Your task to perform on an android device: Clear all items from cart on bestbuy. Search for razer deathadder on bestbuy, select the first entry, add it to the cart, then select checkout. Image 0: 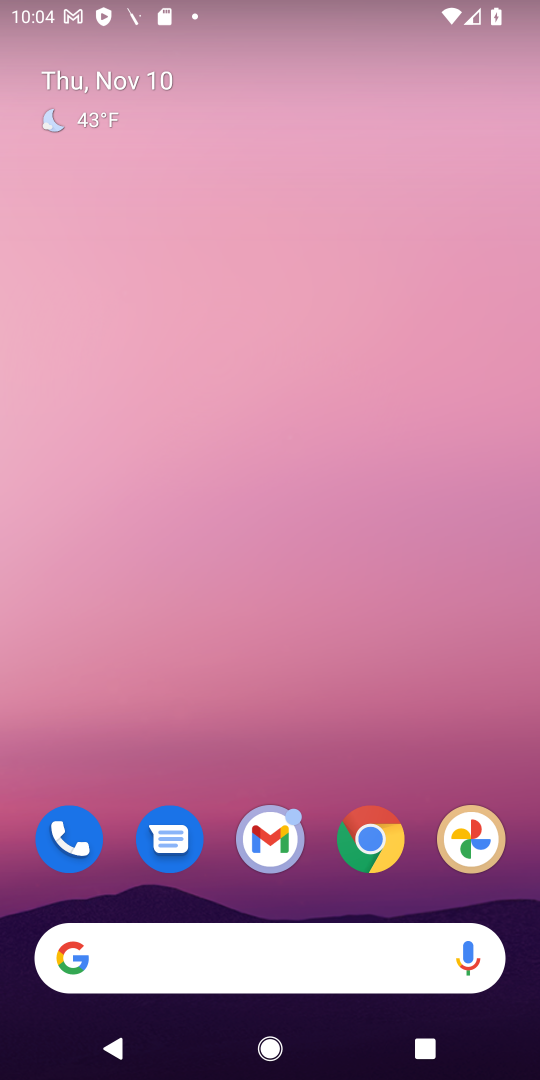
Step 0: click (393, 841)
Your task to perform on an android device: Clear all items from cart on bestbuy. Search for razer deathadder on bestbuy, select the first entry, add it to the cart, then select checkout. Image 1: 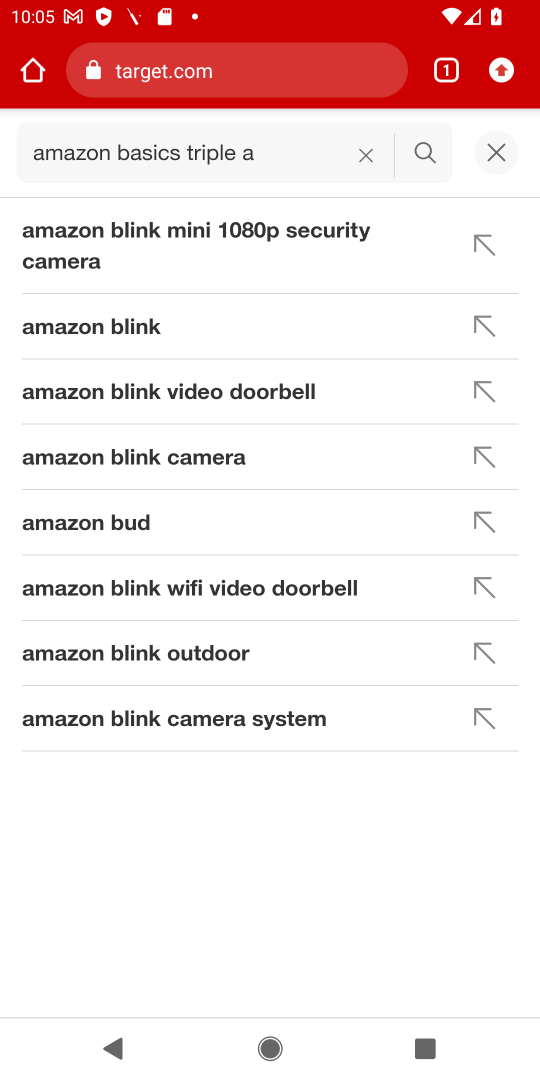
Step 1: click (333, 88)
Your task to perform on an android device: Clear all items from cart on bestbuy. Search for razer deathadder on bestbuy, select the first entry, add it to the cart, then select checkout. Image 2: 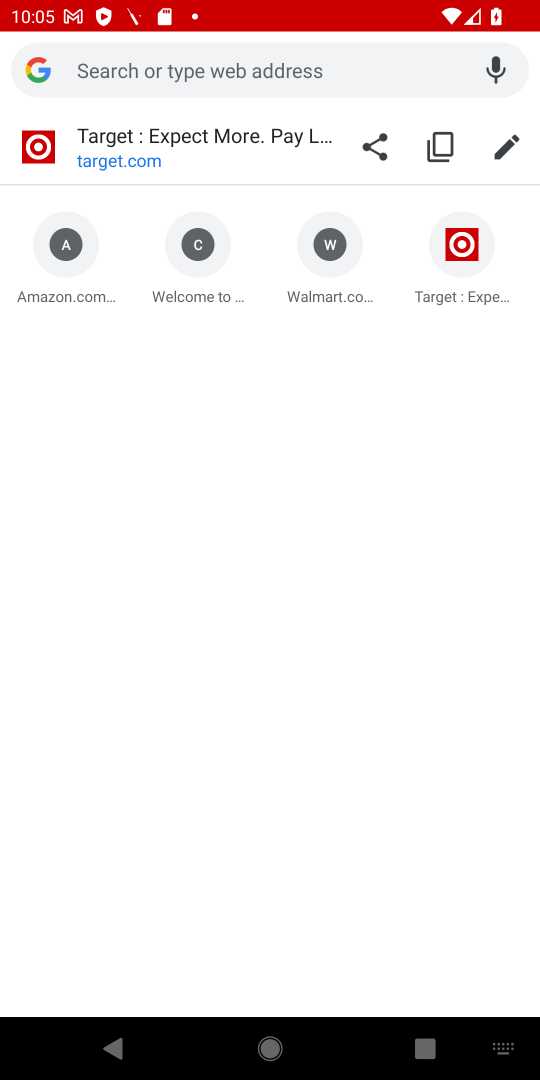
Step 2: type "bestbuy"
Your task to perform on an android device: Clear all items from cart on bestbuy. Search for razer deathadder on bestbuy, select the first entry, add it to the cart, then select checkout. Image 3: 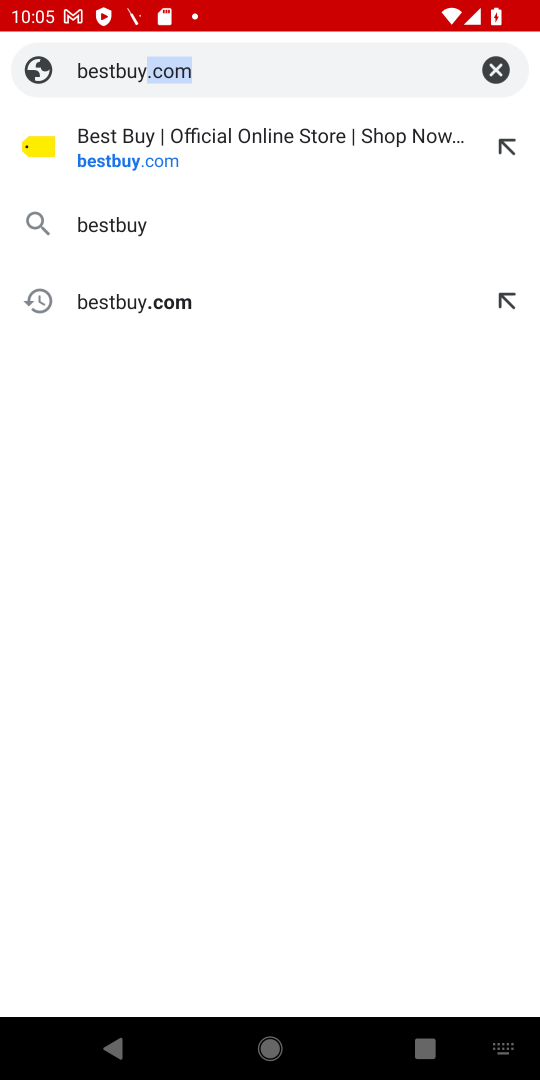
Step 3: click (353, 67)
Your task to perform on an android device: Clear all items from cart on bestbuy. Search for razer deathadder on bestbuy, select the first entry, add it to the cart, then select checkout. Image 4: 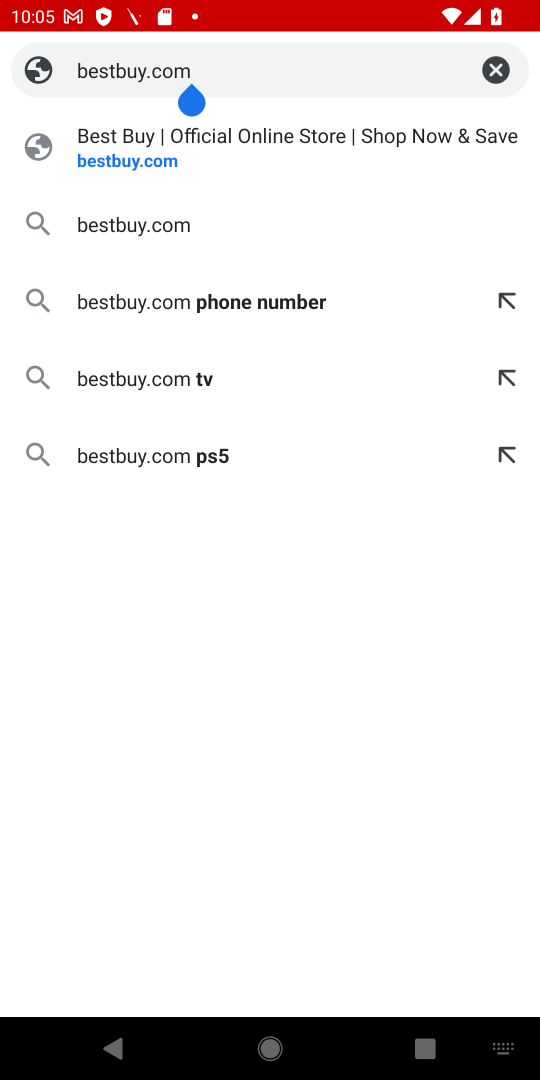
Step 4: click (170, 221)
Your task to perform on an android device: Clear all items from cart on bestbuy. Search for razer deathadder on bestbuy, select the first entry, add it to the cart, then select checkout. Image 5: 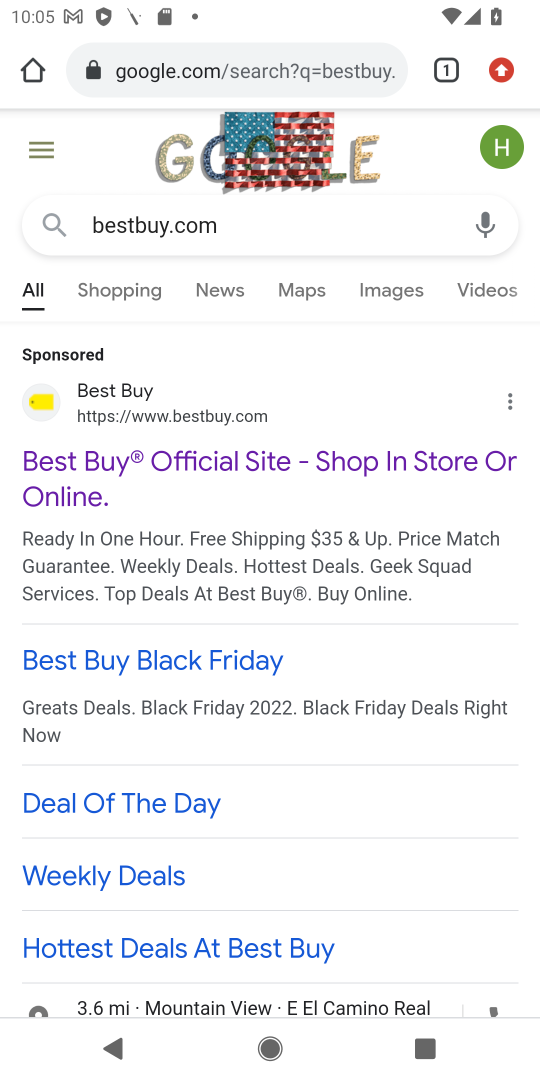
Step 5: click (221, 413)
Your task to perform on an android device: Clear all items from cart on bestbuy. Search for razer deathadder on bestbuy, select the first entry, add it to the cart, then select checkout. Image 6: 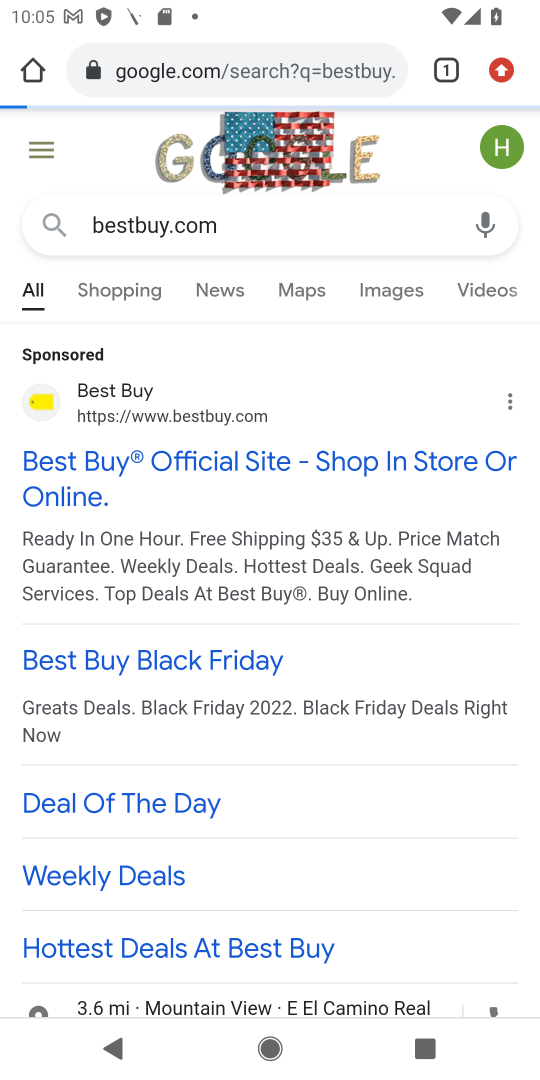
Step 6: click (221, 413)
Your task to perform on an android device: Clear all items from cart on bestbuy. Search for razer deathadder on bestbuy, select the first entry, add it to the cart, then select checkout. Image 7: 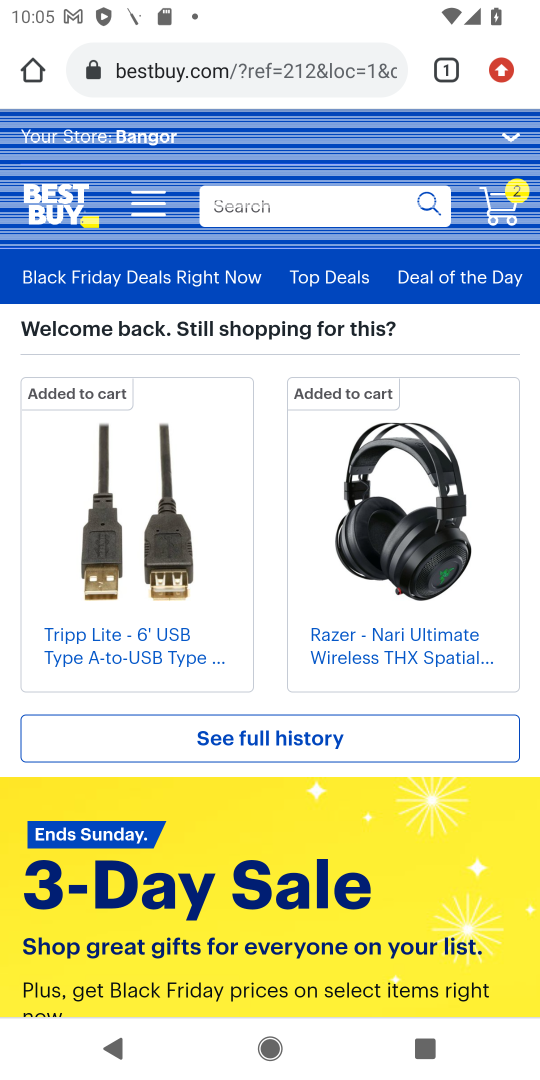
Step 7: click (500, 209)
Your task to perform on an android device: Clear all items from cart on bestbuy. Search for razer deathadder on bestbuy, select the first entry, add it to the cart, then select checkout. Image 8: 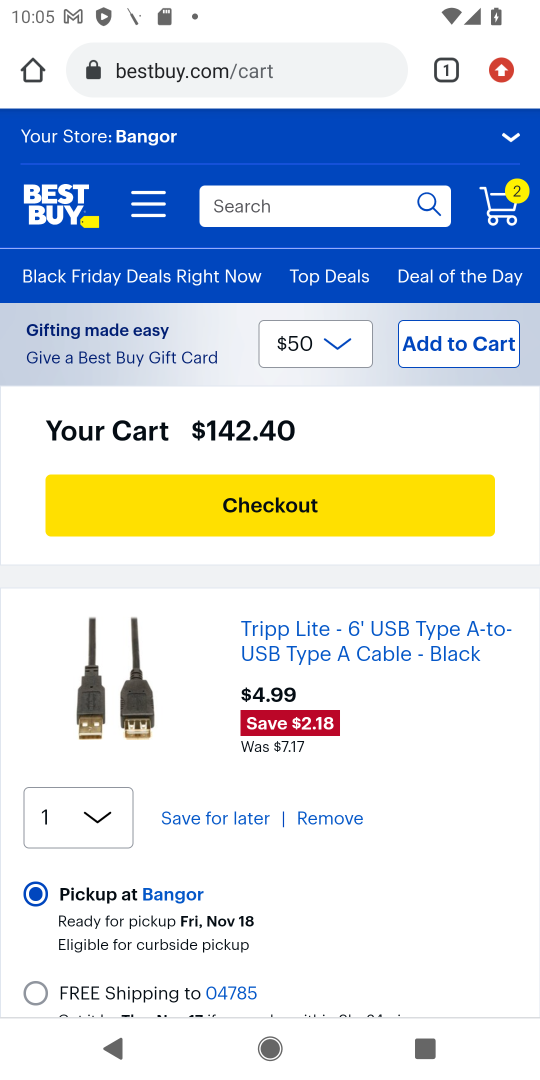
Step 8: click (324, 817)
Your task to perform on an android device: Clear all items from cart on bestbuy. Search for razer deathadder on bestbuy, select the first entry, add it to the cart, then select checkout. Image 9: 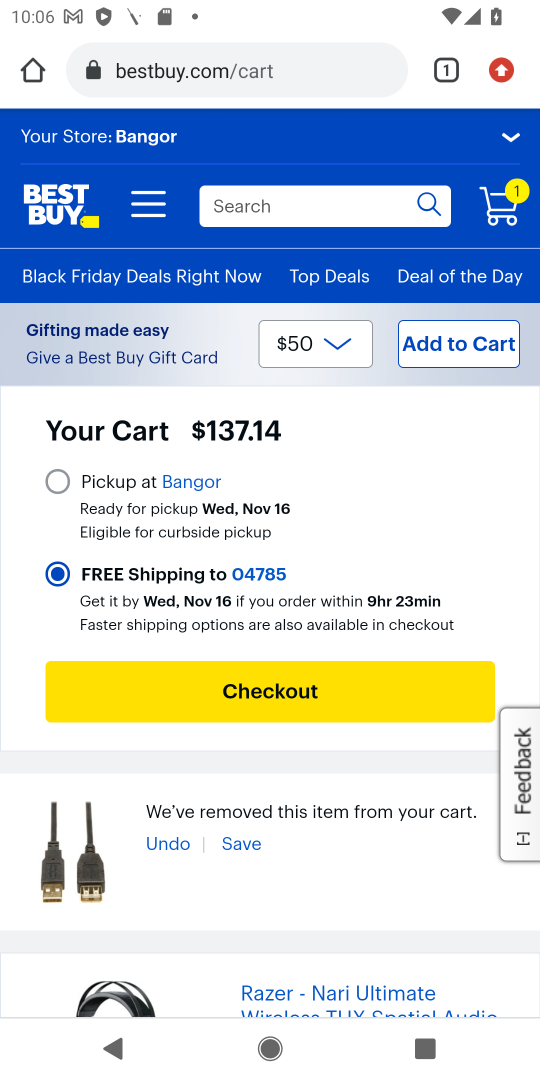
Step 9: drag from (377, 788) to (404, 345)
Your task to perform on an android device: Clear all items from cart on bestbuy. Search for razer deathadder on bestbuy, select the first entry, add it to the cart, then select checkout. Image 10: 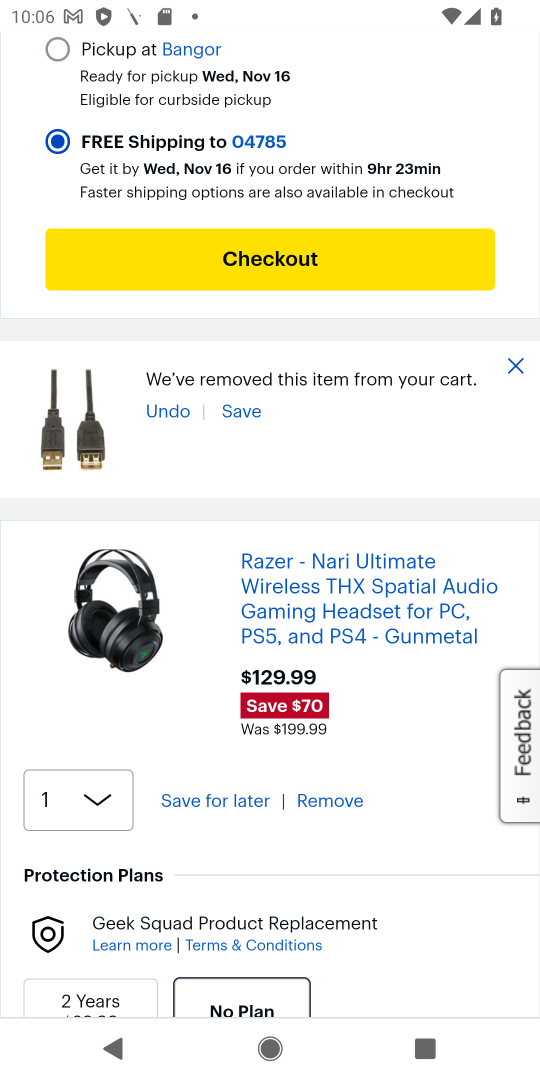
Step 10: click (338, 795)
Your task to perform on an android device: Clear all items from cart on bestbuy. Search for razer deathadder on bestbuy, select the first entry, add it to the cart, then select checkout. Image 11: 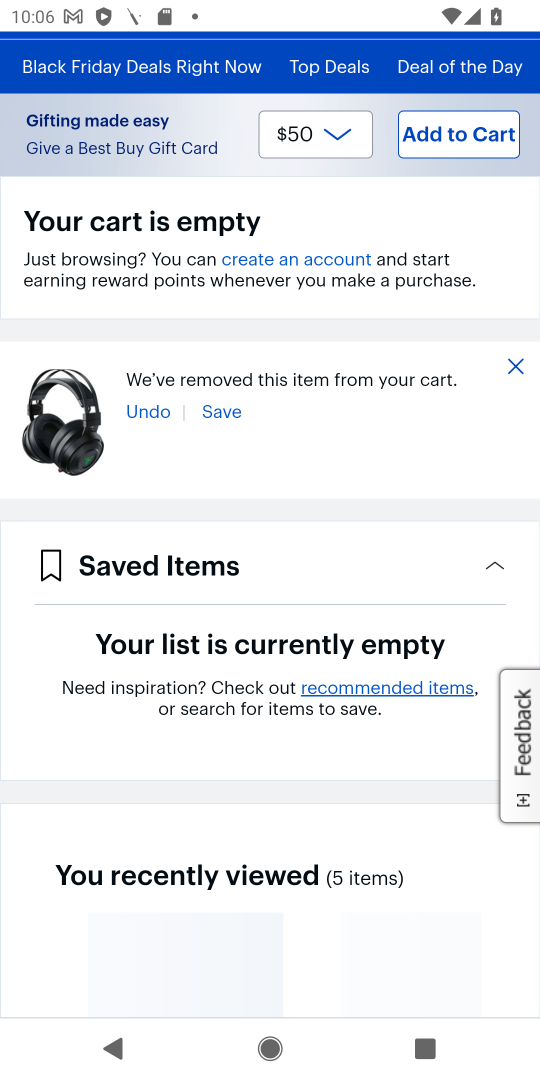
Step 11: click (517, 367)
Your task to perform on an android device: Clear all items from cart on bestbuy. Search for razer deathadder on bestbuy, select the first entry, add it to the cart, then select checkout. Image 12: 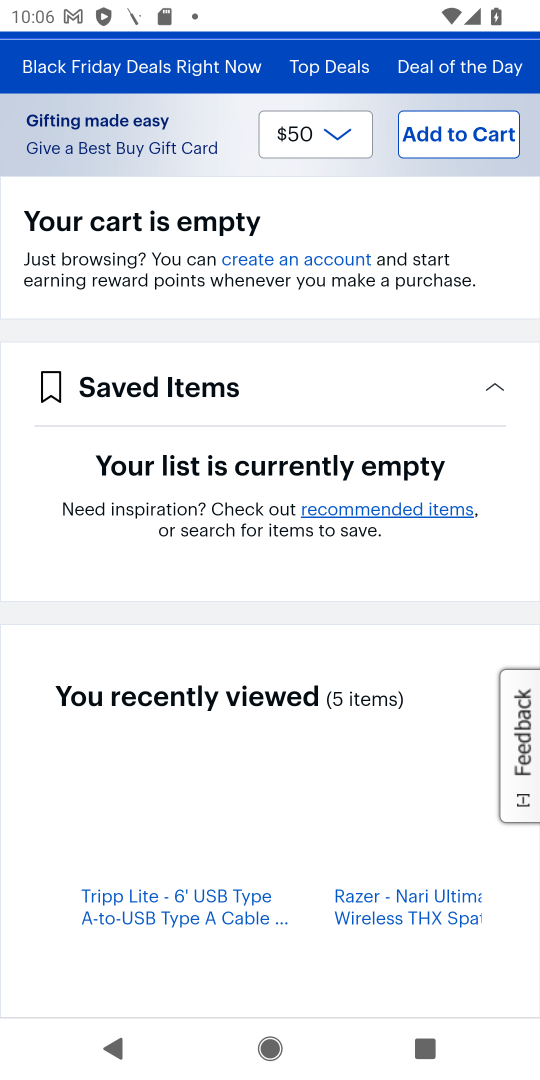
Step 12: drag from (408, 257) to (396, 591)
Your task to perform on an android device: Clear all items from cart on bestbuy. Search for razer deathadder on bestbuy, select the first entry, add it to the cart, then select checkout. Image 13: 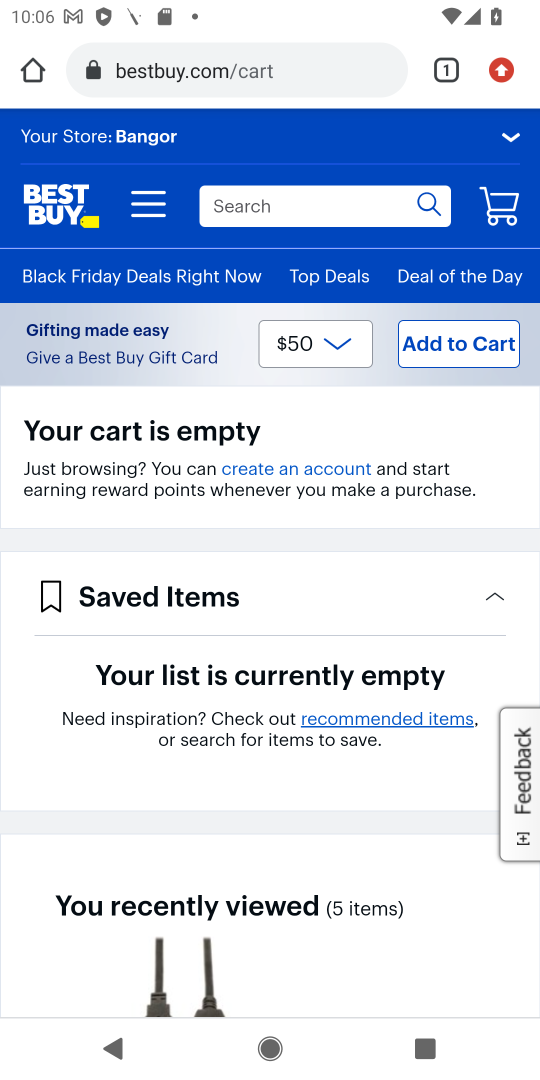
Step 13: click (361, 191)
Your task to perform on an android device: Clear all items from cart on bestbuy. Search for razer deathadder on bestbuy, select the first entry, add it to the cart, then select checkout. Image 14: 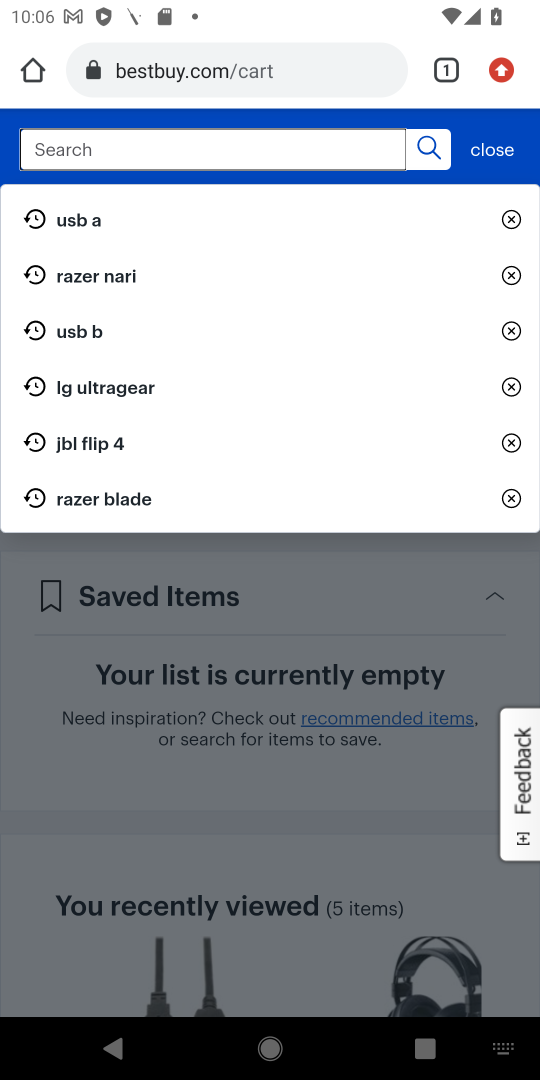
Step 14: press enter
Your task to perform on an android device: Clear all items from cart on bestbuy. Search for razer deathadder on bestbuy, select the first entry, add it to the cart, then select checkout. Image 15: 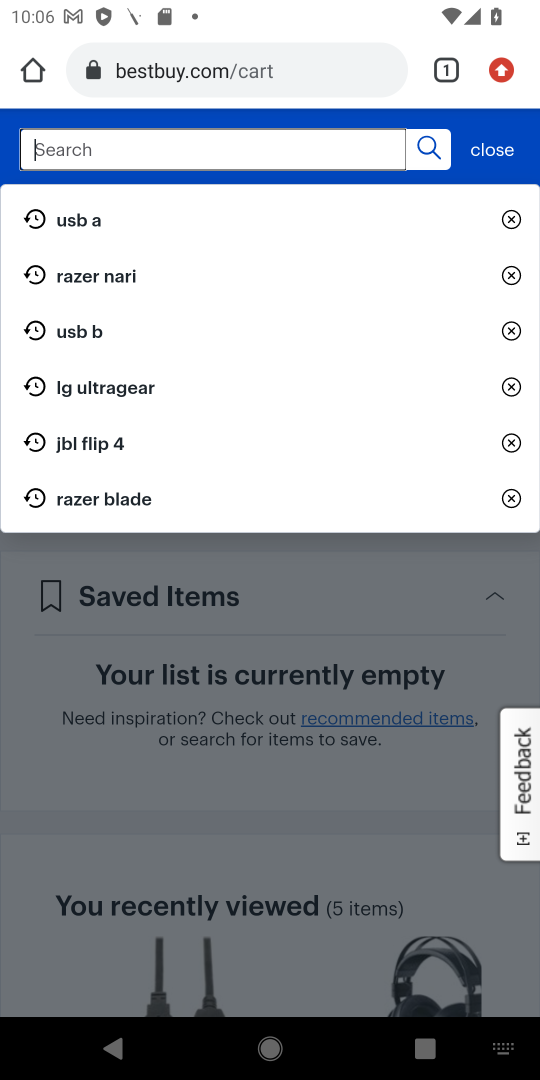
Step 15: type "razer deathadder"
Your task to perform on an android device: Clear all items from cart on bestbuy. Search for razer deathadder on bestbuy, select the first entry, add it to the cart, then select checkout. Image 16: 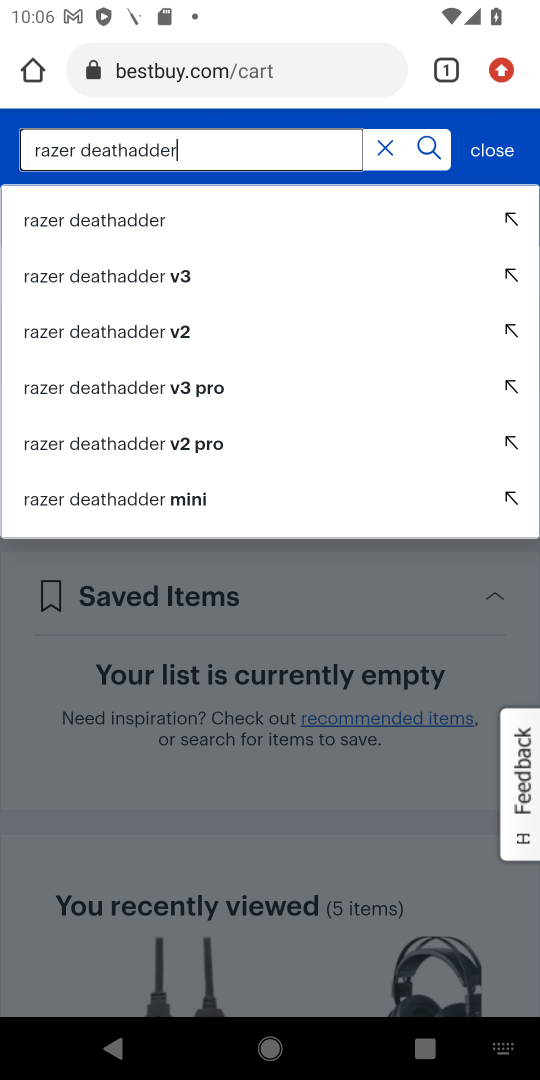
Step 16: click (141, 216)
Your task to perform on an android device: Clear all items from cart on bestbuy. Search for razer deathadder on bestbuy, select the first entry, add it to the cart, then select checkout. Image 17: 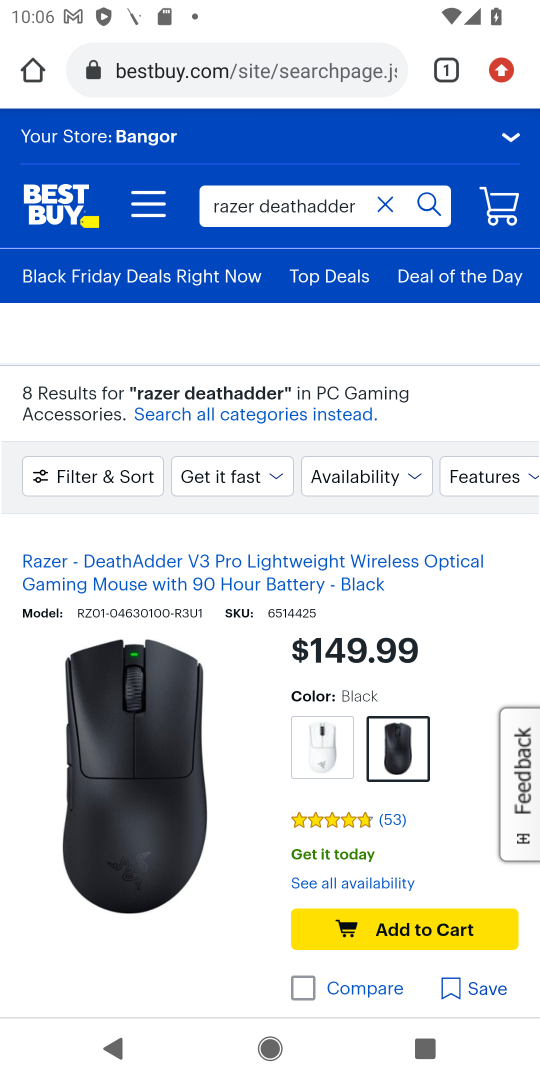
Step 17: click (206, 577)
Your task to perform on an android device: Clear all items from cart on bestbuy. Search for razer deathadder on bestbuy, select the first entry, add it to the cart, then select checkout. Image 18: 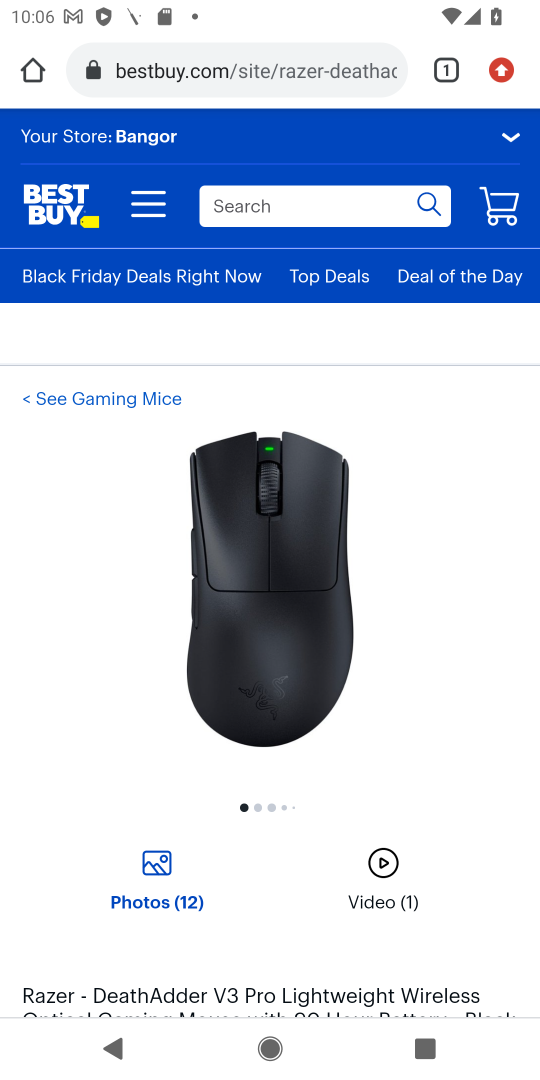
Step 18: drag from (437, 740) to (425, 285)
Your task to perform on an android device: Clear all items from cart on bestbuy. Search for razer deathadder on bestbuy, select the first entry, add it to the cart, then select checkout. Image 19: 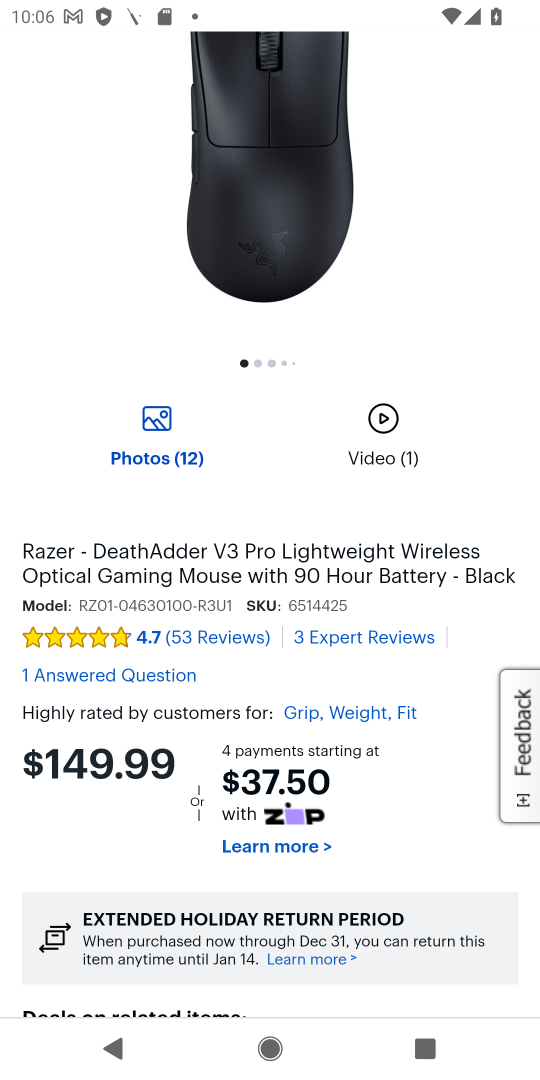
Step 19: drag from (438, 850) to (424, 430)
Your task to perform on an android device: Clear all items from cart on bestbuy. Search for razer deathadder on bestbuy, select the first entry, add it to the cart, then select checkout. Image 20: 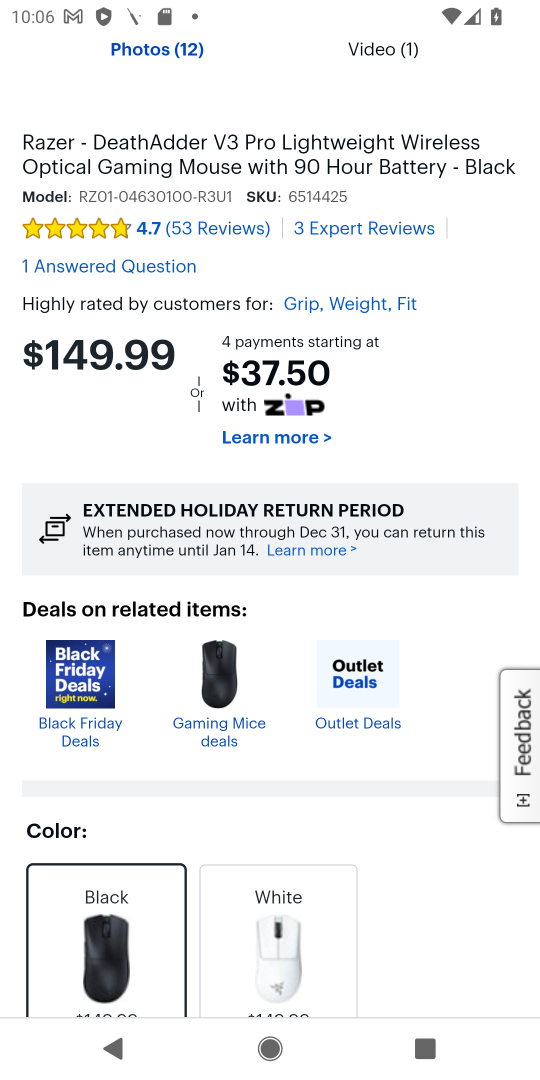
Step 20: drag from (435, 619) to (443, 242)
Your task to perform on an android device: Clear all items from cart on bestbuy. Search for razer deathadder on bestbuy, select the first entry, add it to the cart, then select checkout. Image 21: 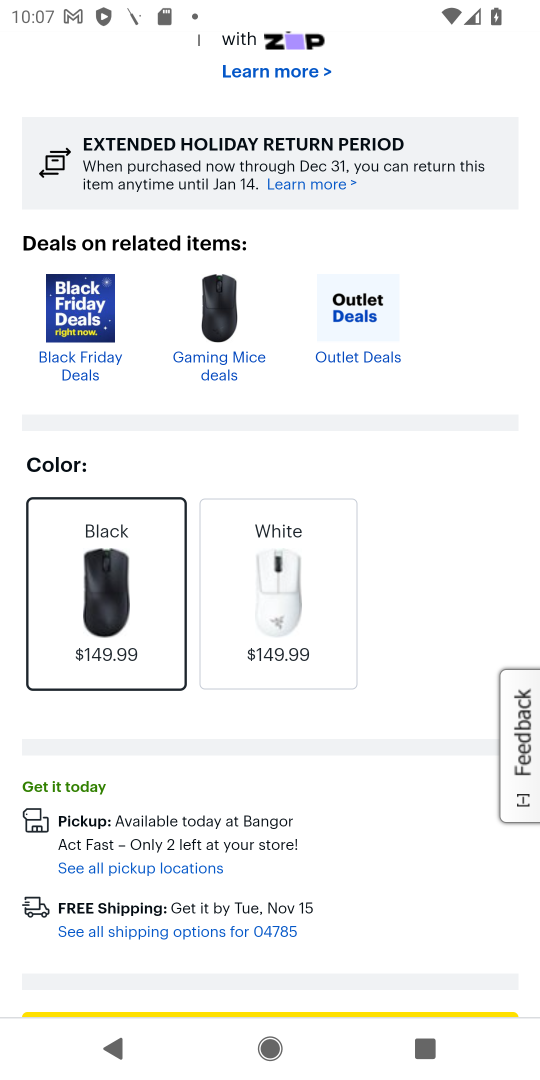
Step 21: drag from (419, 857) to (443, 329)
Your task to perform on an android device: Clear all items from cart on bestbuy. Search for razer deathadder on bestbuy, select the first entry, add it to the cart, then select checkout. Image 22: 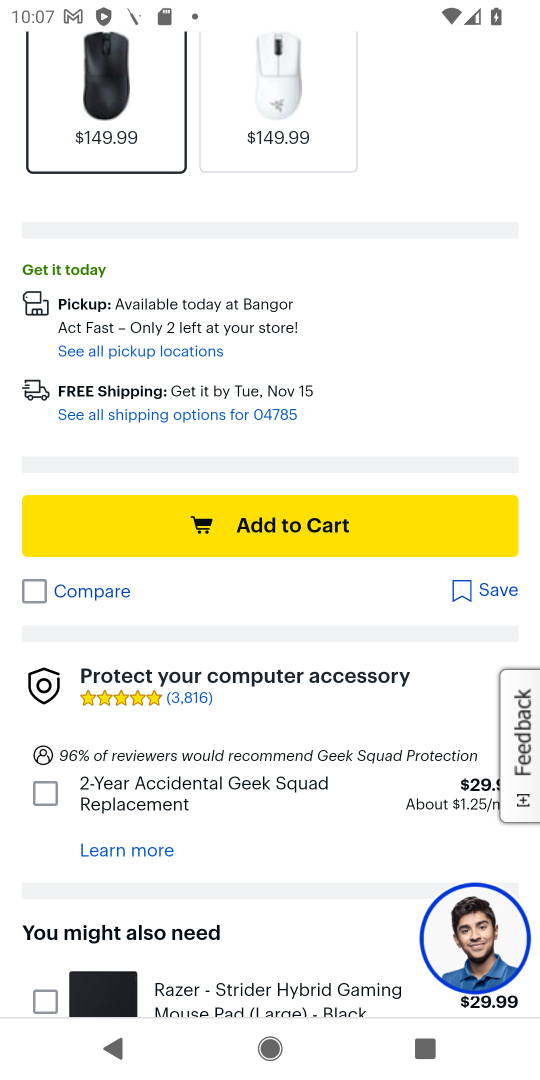
Step 22: click (316, 517)
Your task to perform on an android device: Clear all items from cart on bestbuy. Search for razer deathadder on bestbuy, select the first entry, add it to the cart, then select checkout. Image 23: 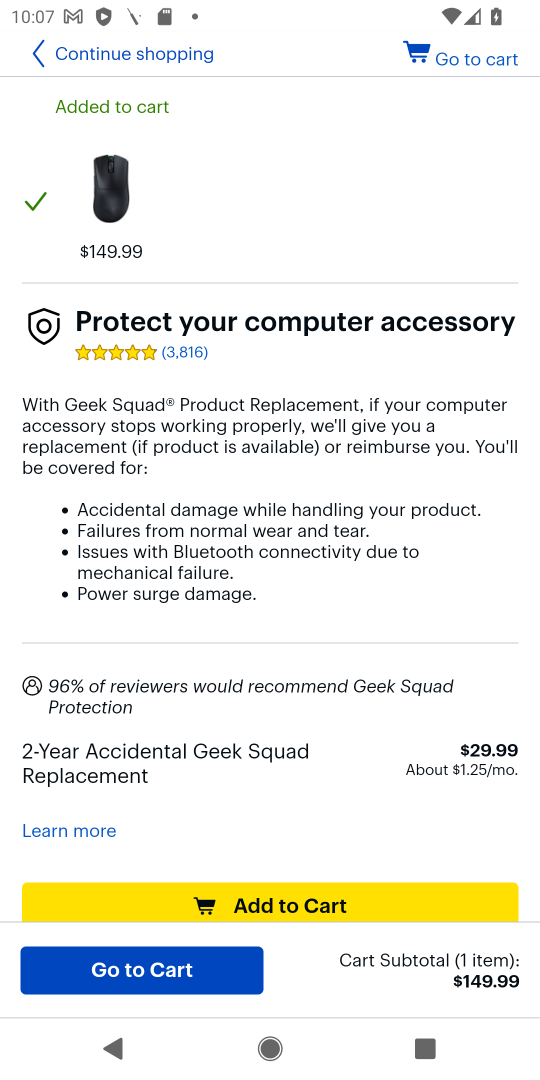
Step 23: click (169, 965)
Your task to perform on an android device: Clear all items from cart on bestbuy. Search for razer deathadder on bestbuy, select the first entry, add it to the cart, then select checkout. Image 24: 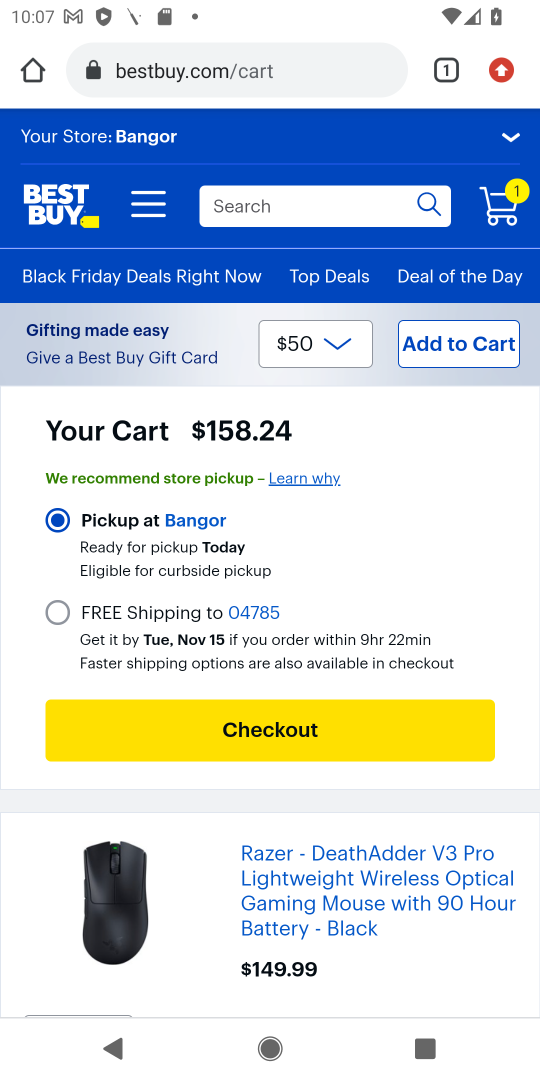
Step 24: click (289, 720)
Your task to perform on an android device: Clear all items from cart on bestbuy. Search for razer deathadder on bestbuy, select the first entry, add it to the cart, then select checkout. Image 25: 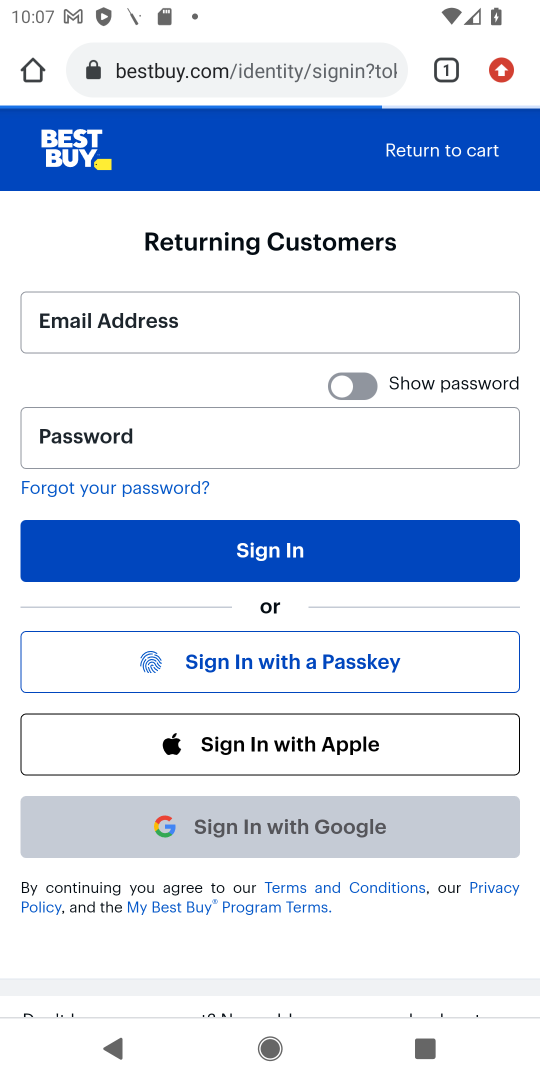
Step 25: task complete